Your task to perform on an android device: Go to battery settings Image 0: 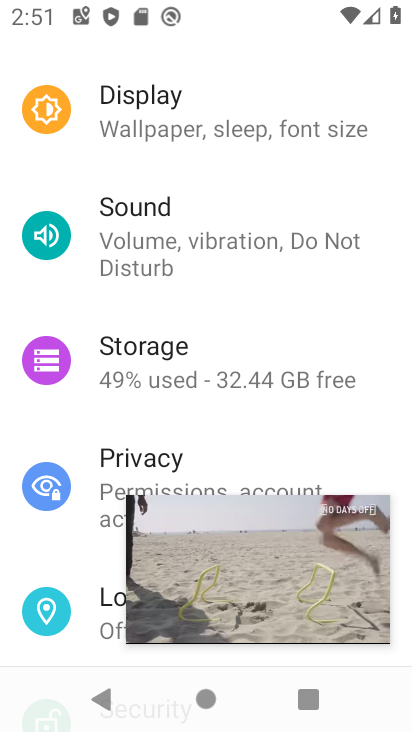
Step 0: click (356, 511)
Your task to perform on an android device: Go to battery settings Image 1: 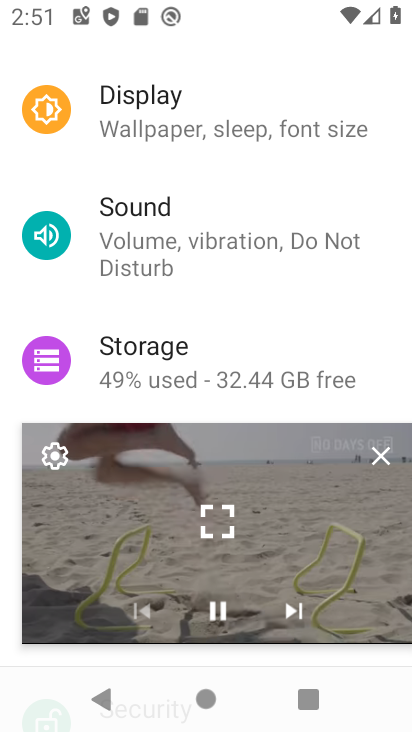
Step 1: click (356, 511)
Your task to perform on an android device: Go to battery settings Image 2: 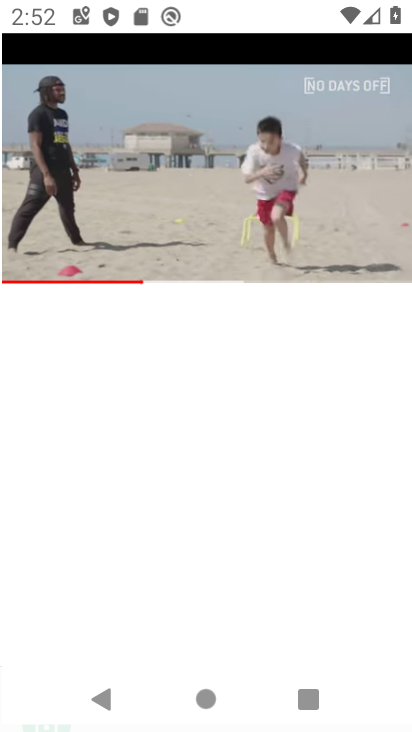
Step 2: click (380, 455)
Your task to perform on an android device: Go to battery settings Image 3: 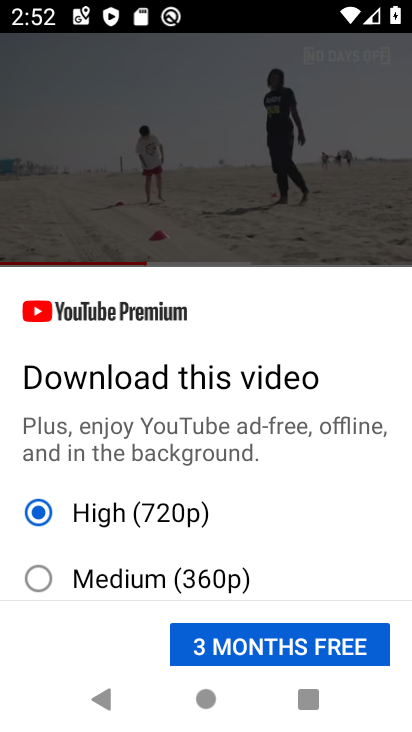
Step 3: press back button
Your task to perform on an android device: Go to battery settings Image 4: 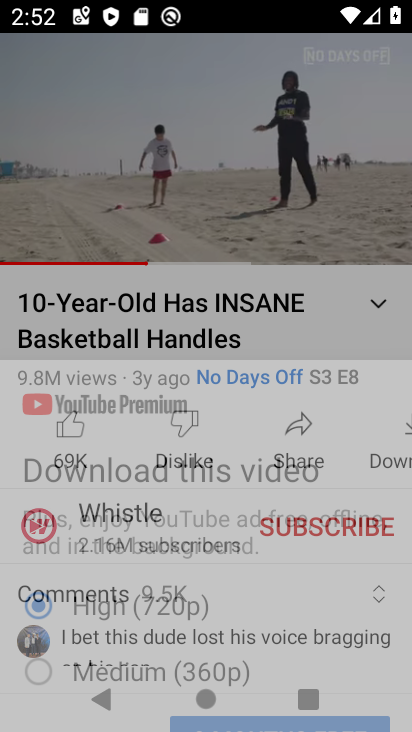
Step 4: press back button
Your task to perform on an android device: Go to battery settings Image 5: 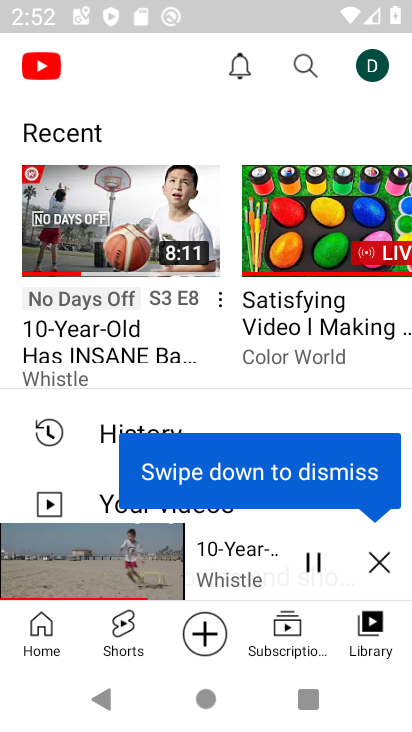
Step 5: press home button
Your task to perform on an android device: Go to battery settings Image 6: 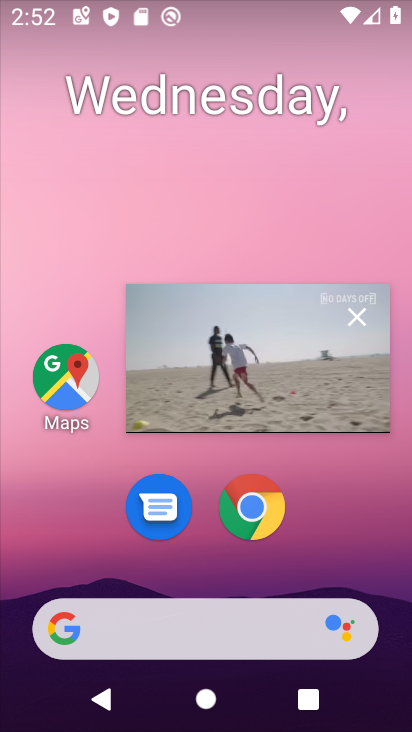
Step 6: click (352, 318)
Your task to perform on an android device: Go to battery settings Image 7: 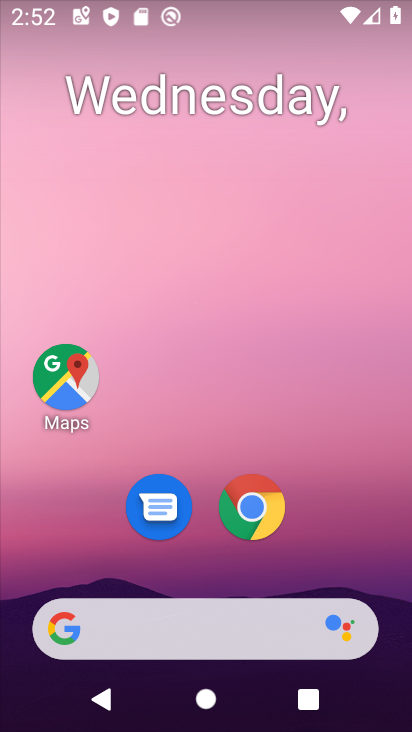
Step 7: drag from (310, 522) to (344, 170)
Your task to perform on an android device: Go to battery settings Image 8: 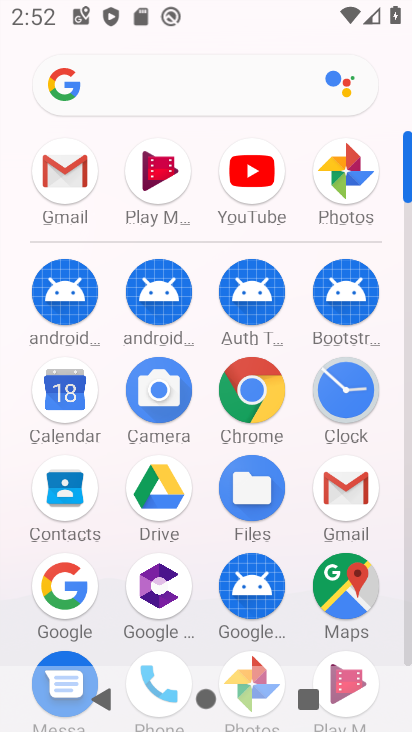
Step 8: drag from (290, 576) to (297, 111)
Your task to perform on an android device: Go to battery settings Image 9: 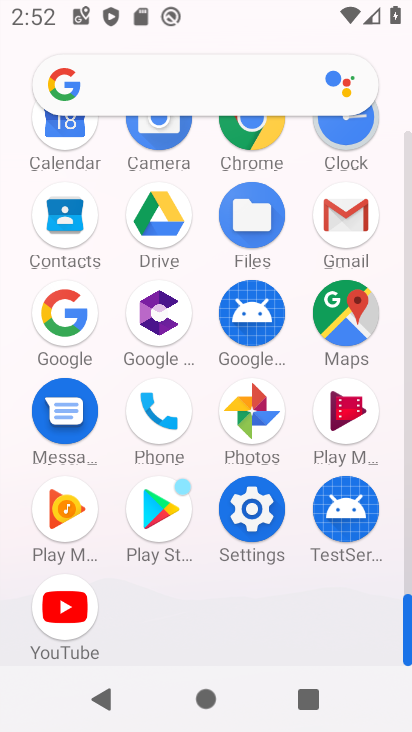
Step 9: click (262, 517)
Your task to perform on an android device: Go to battery settings Image 10: 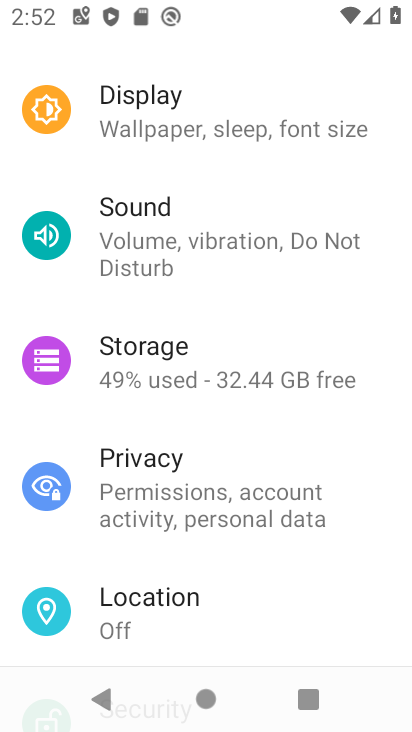
Step 10: drag from (208, 125) to (236, 375)
Your task to perform on an android device: Go to battery settings Image 11: 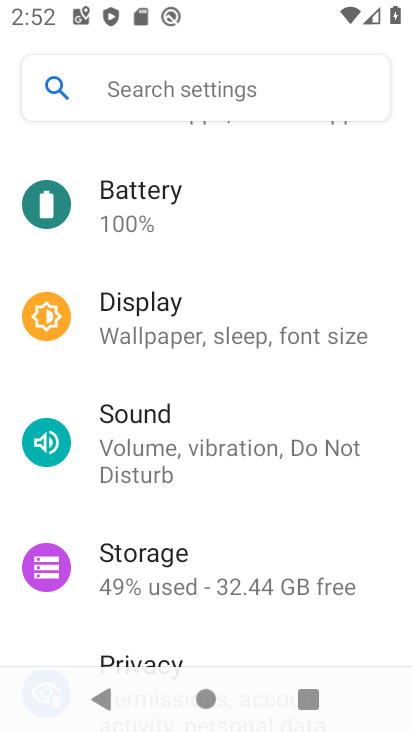
Step 11: click (96, 189)
Your task to perform on an android device: Go to battery settings Image 12: 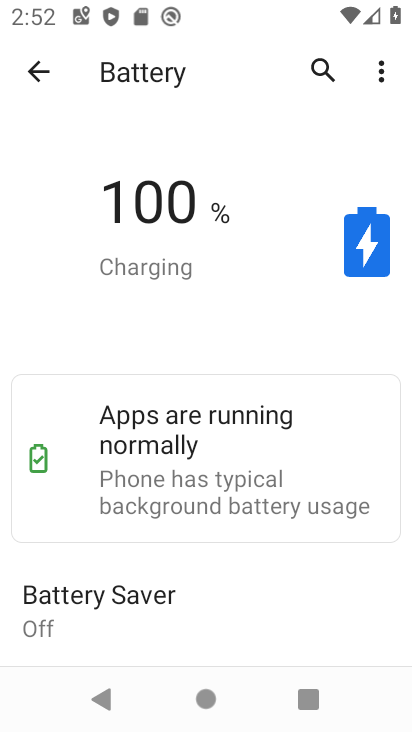
Step 12: task complete